Your task to perform on an android device: turn off notifications in google photos Image 0: 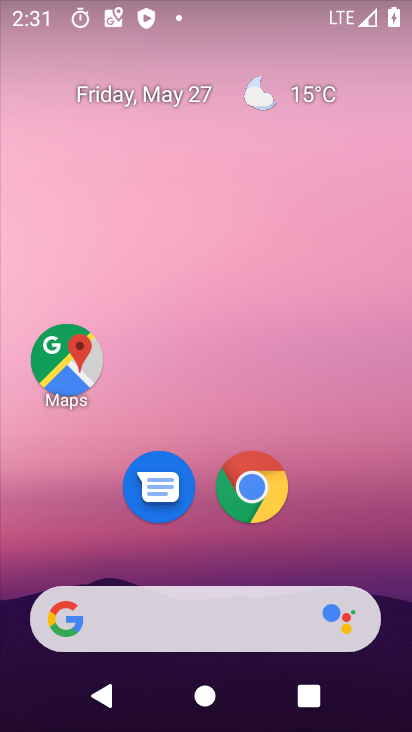
Step 0: drag from (347, 517) to (315, 120)
Your task to perform on an android device: turn off notifications in google photos Image 1: 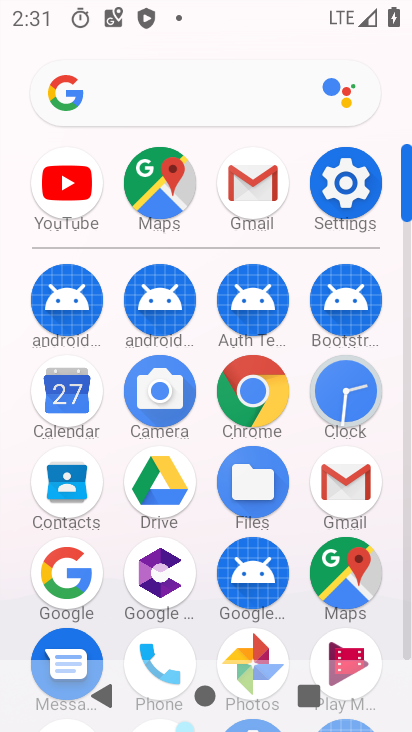
Step 1: click (248, 643)
Your task to perform on an android device: turn off notifications in google photos Image 2: 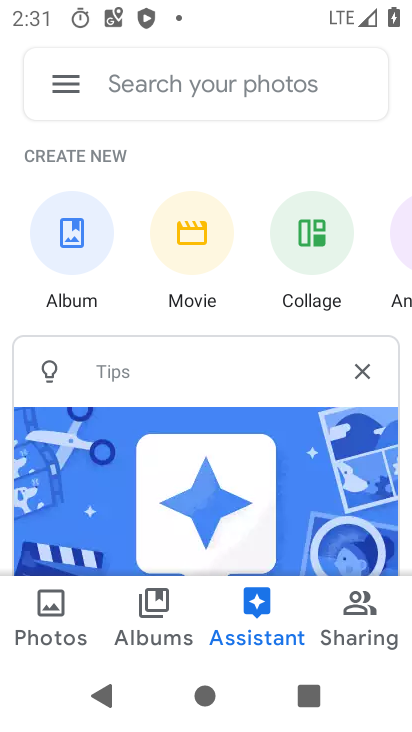
Step 2: click (61, 81)
Your task to perform on an android device: turn off notifications in google photos Image 3: 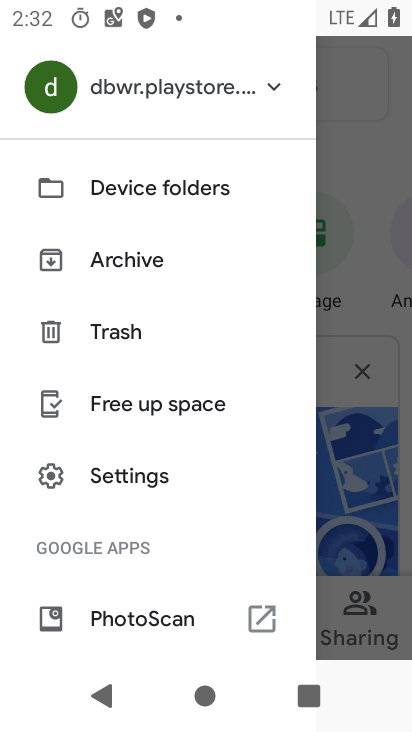
Step 3: click (144, 486)
Your task to perform on an android device: turn off notifications in google photos Image 4: 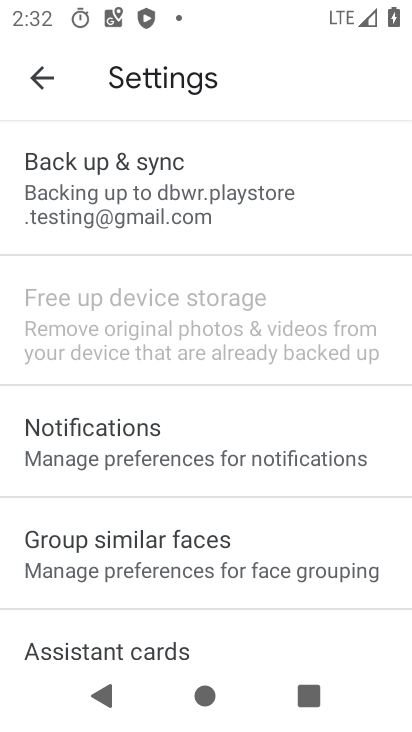
Step 4: click (196, 449)
Your task to perform on an android device: turn off notifications in google photos Image 5: 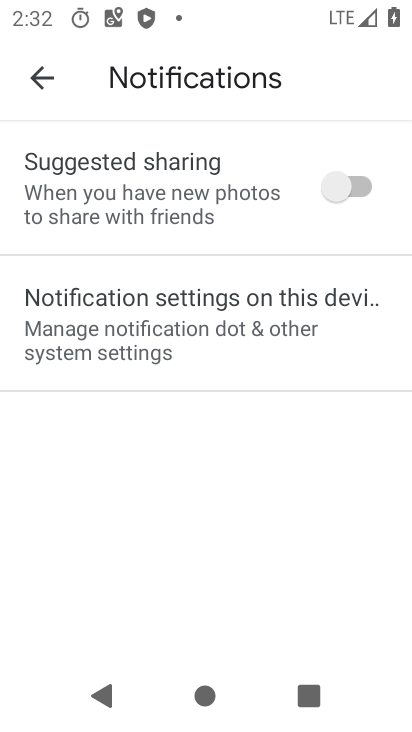
Step 5: click (246, 320)
Your task to perform on an android device: turn off notifications in google photos Image 6: 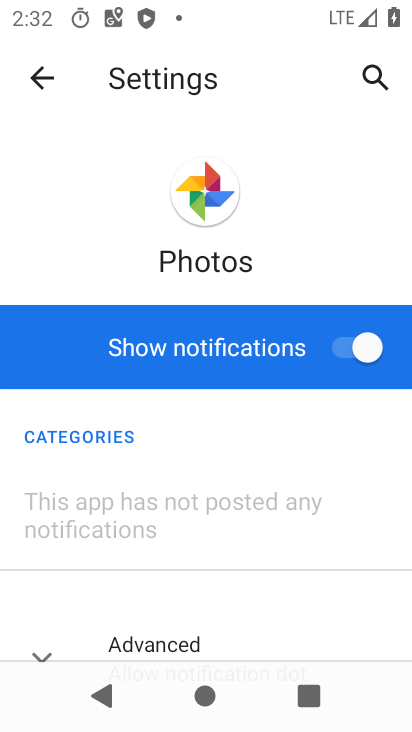
Step 6: click (338, 350)
Your task to perform on an android device: turn off notifications in google photos Image 7: 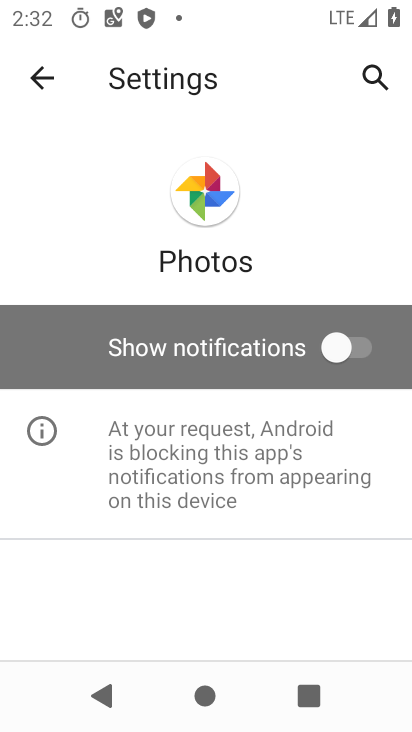
Step 7: task complete